Your task to perform on an android device: Go to Yahoo.com Image 0: 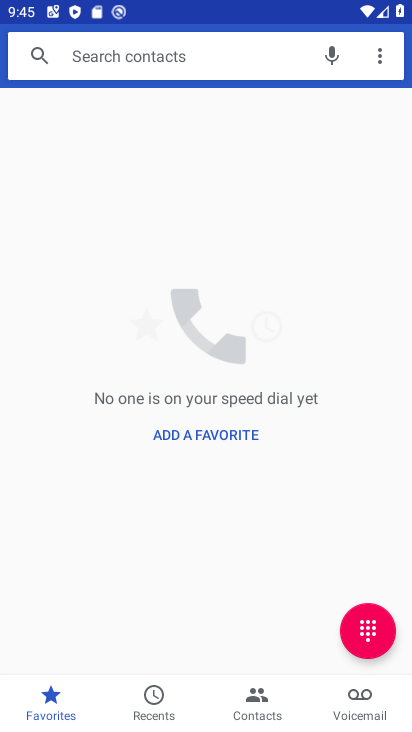
Step 0: press home button
Your task to perform on an android device: Go to Yahoo.com Image 1: 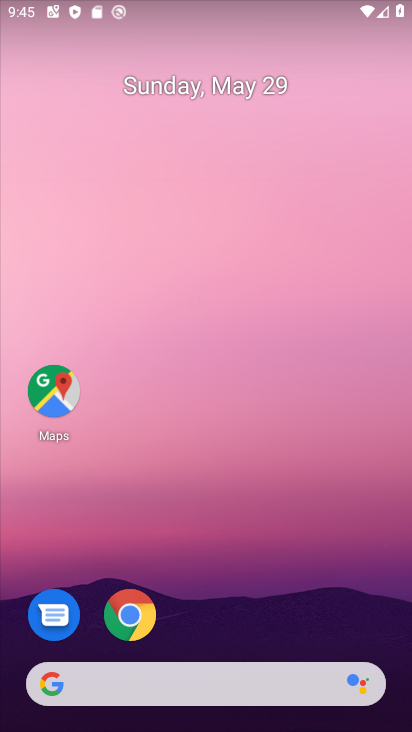
Step 1: click (114, 609)
Your task to perform on an android device: Go to Yahoo.com Image 2: 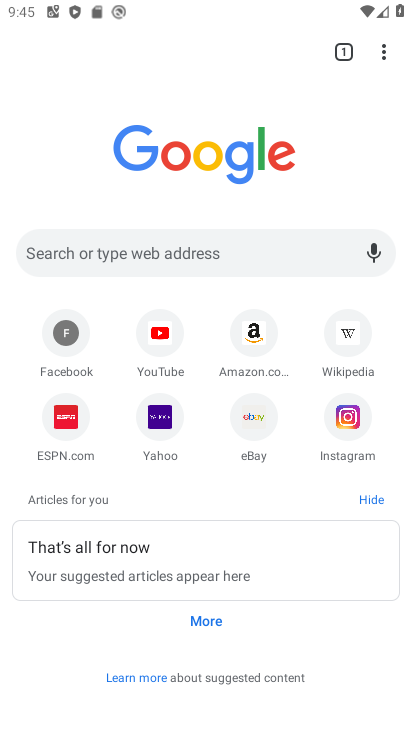
Step 2: click (163, 421)
Your task to perform on an android device: Go to Yahoo.com Image 3: 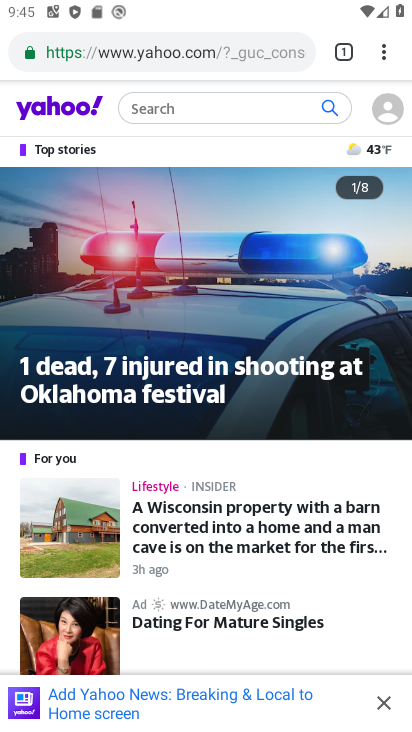
Step 3: task complete